Your task to perform on an android device: empty trash in google photos Image 0: 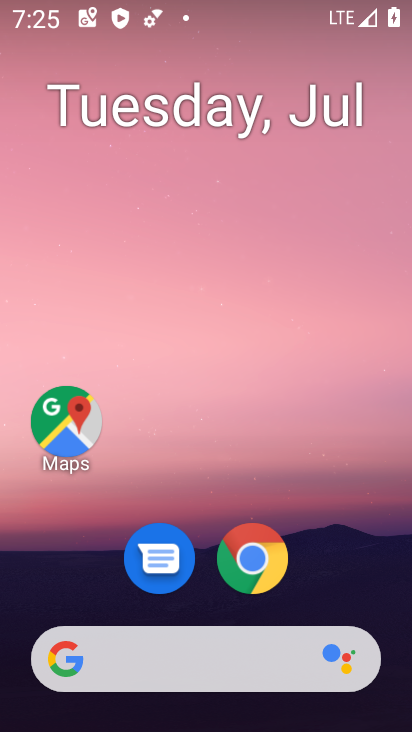
Step 0: drag from (102, 601) to (148, 21)
Your task to perform on an android device: empty trash in google photos Image 1: 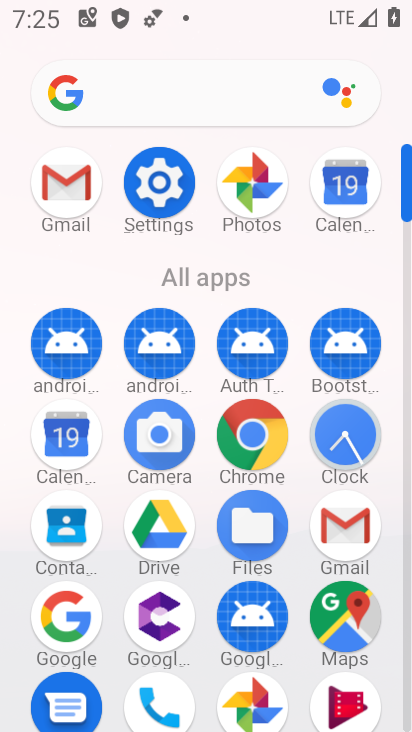
Step 1: click (252, 689)
Your task to perform on an android device: empty trash in google photos Image 2: 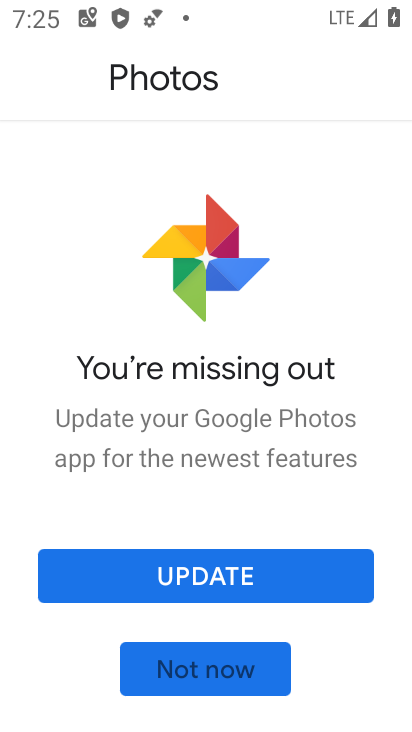
Step 2: click (188, 681)
Your task to perform on an android device: empty trash in google photos Image 3: 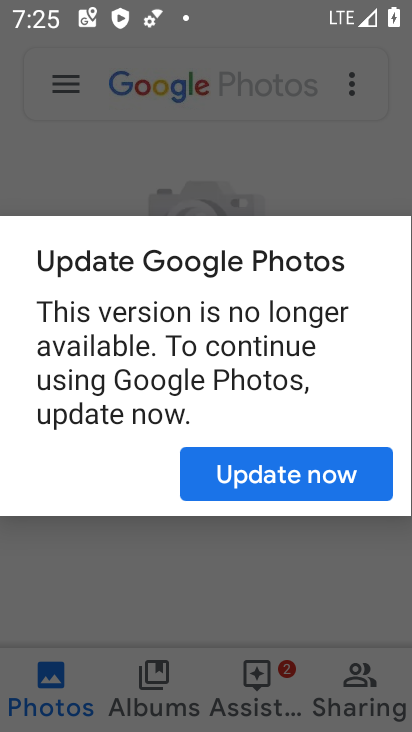
Step 3: click (282, 454)
Your task to perform on an android device: empty trash in google photos Image 4: 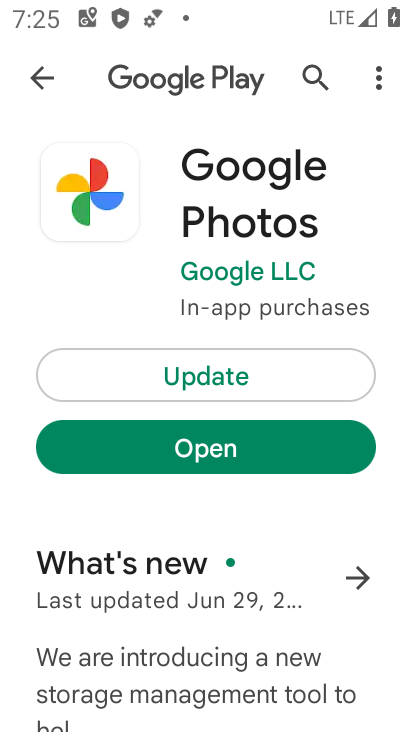
Step 4: click (250, 461)
Your task to perform on an android device: empty trash in google photos Image 5: 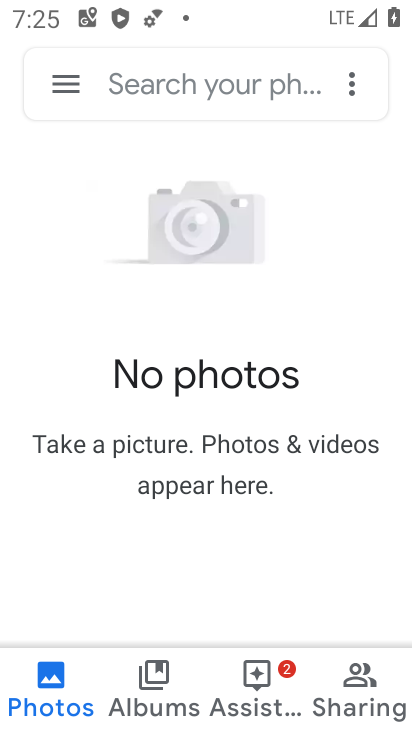
Step 5: click (82, 93)
Your task to perform on an android device: empty trash in google photos Image 6: 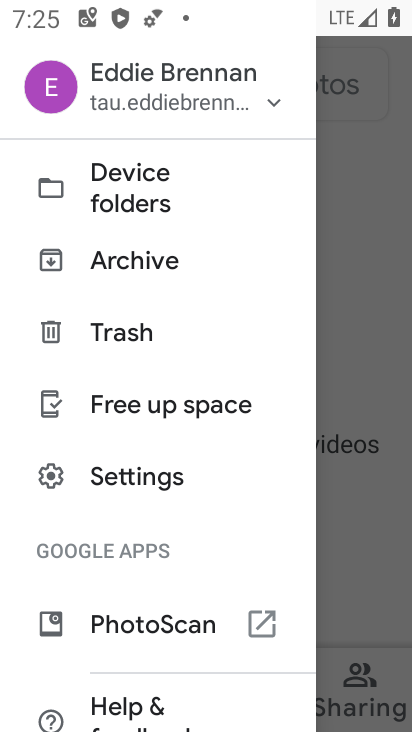
Step 6: click (168, 343)
Your task to perform on an android device: empty trash in google photos Image 7: 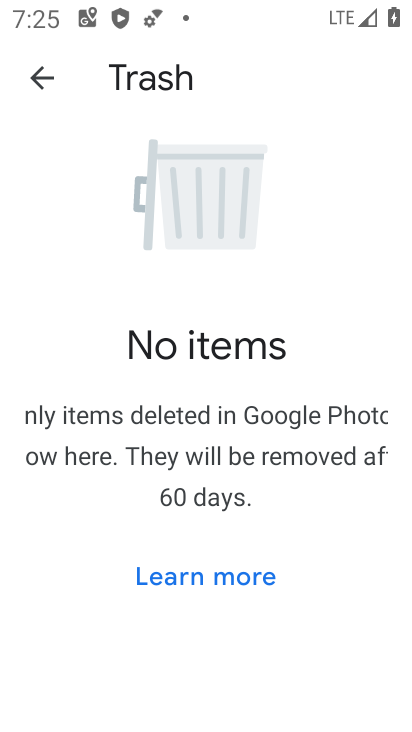
Step 7: task complete